Your task to perform on an android device: Go to battery settings Image 0: 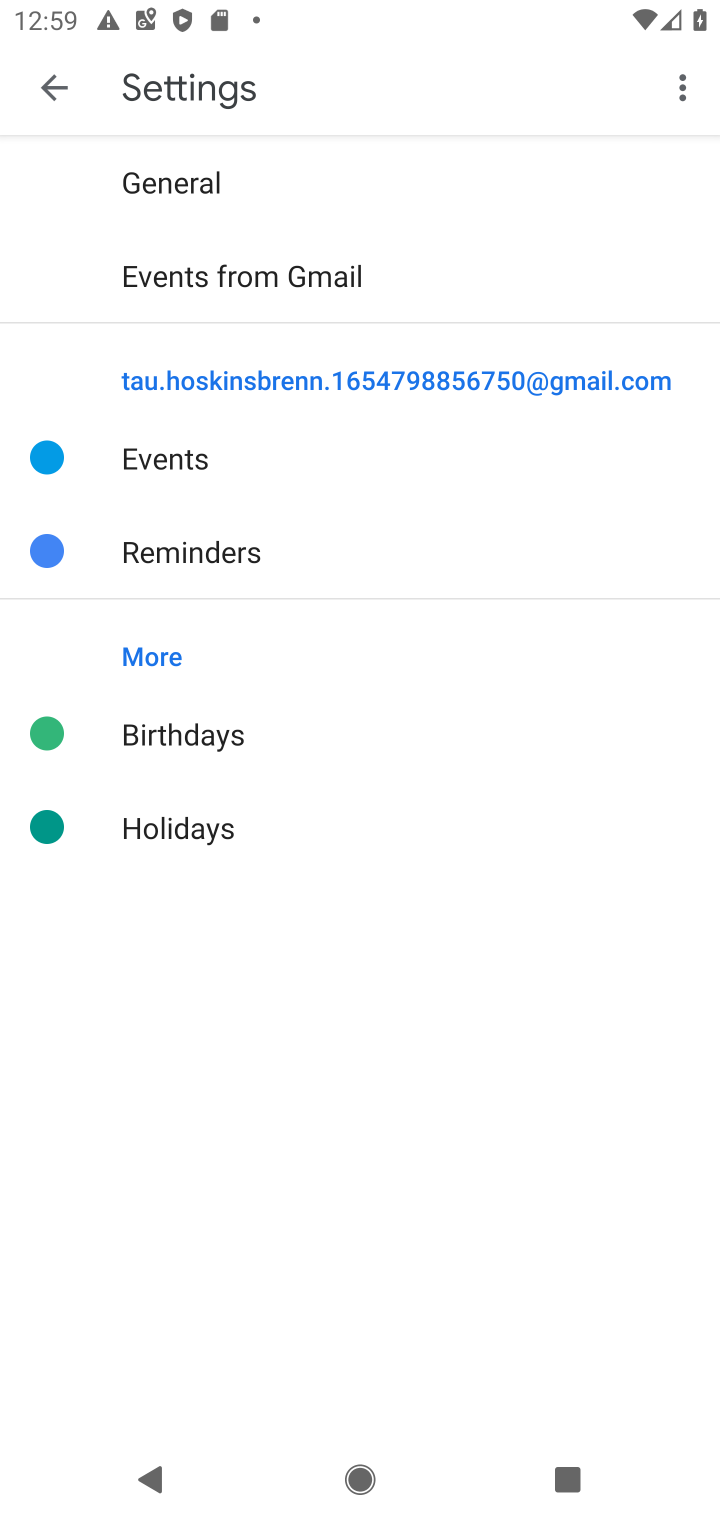
Step 0: press home button
Your task to perform on an android device: Go to battery settings Image 1: 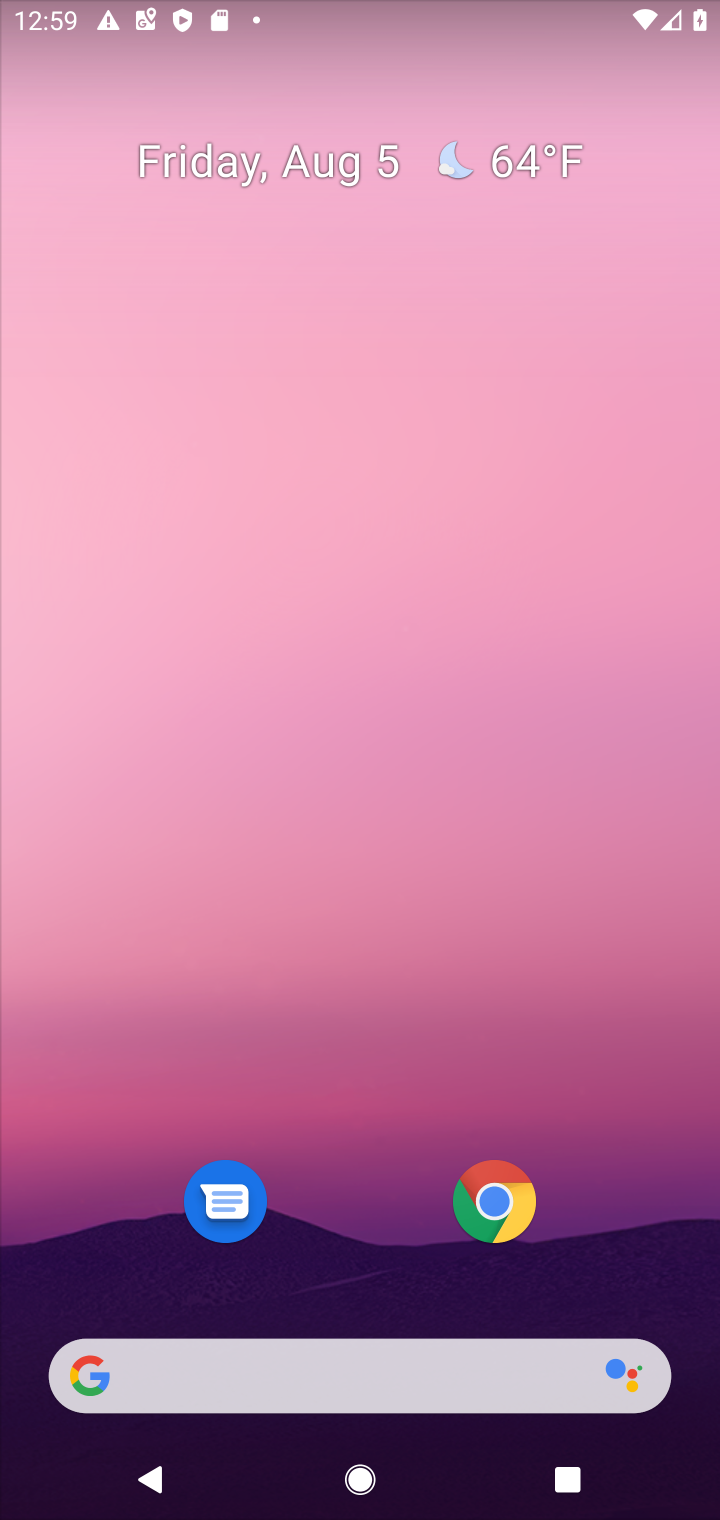
Step 1: drag from (666, 1241) to (519, 551)
Your task to perform on an android device: Go to battery settings Image 2: 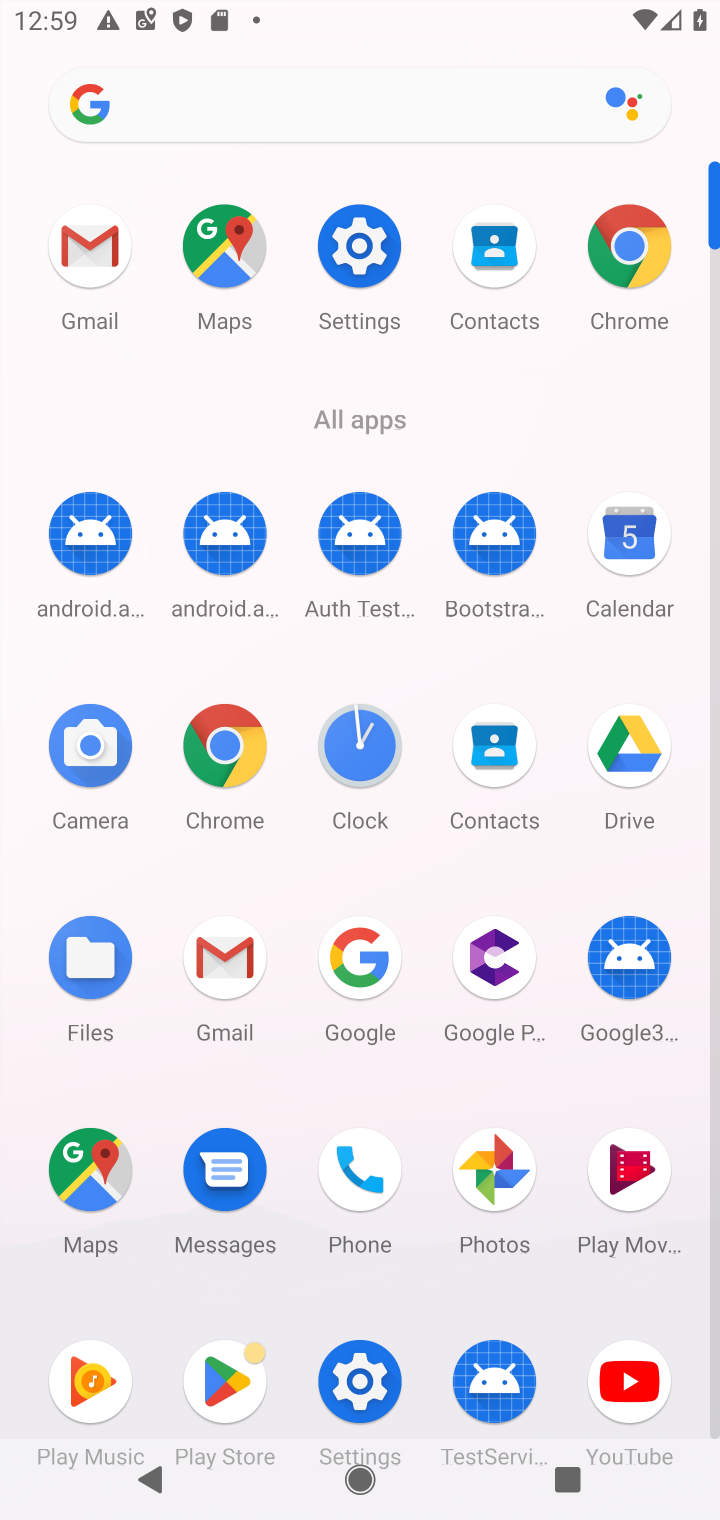
Step 2: click (362, 277)
Your task to perform on an android device: Go to battery settings Image 3: 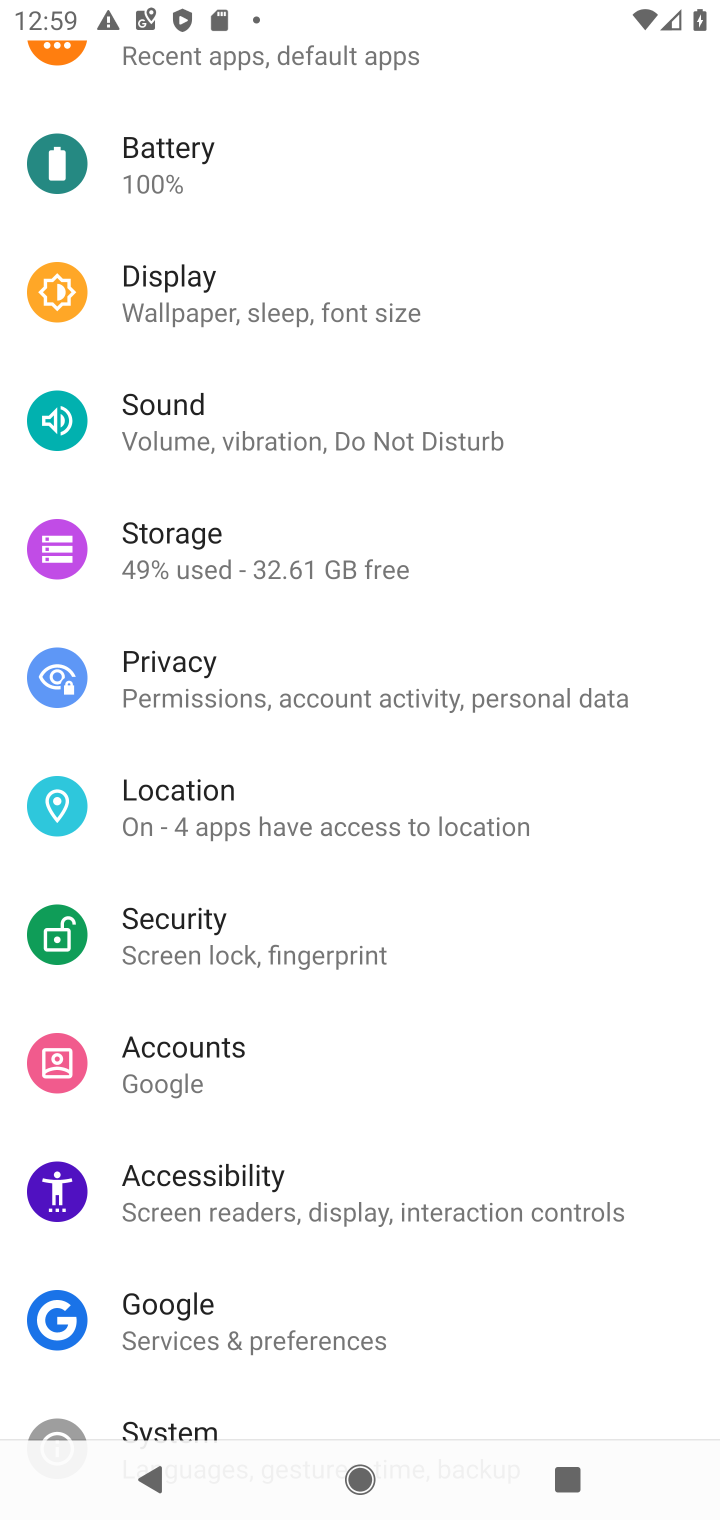
Step 3: click (177, 191)
Your task to perform on an android device: Go to battery settings Image 4: 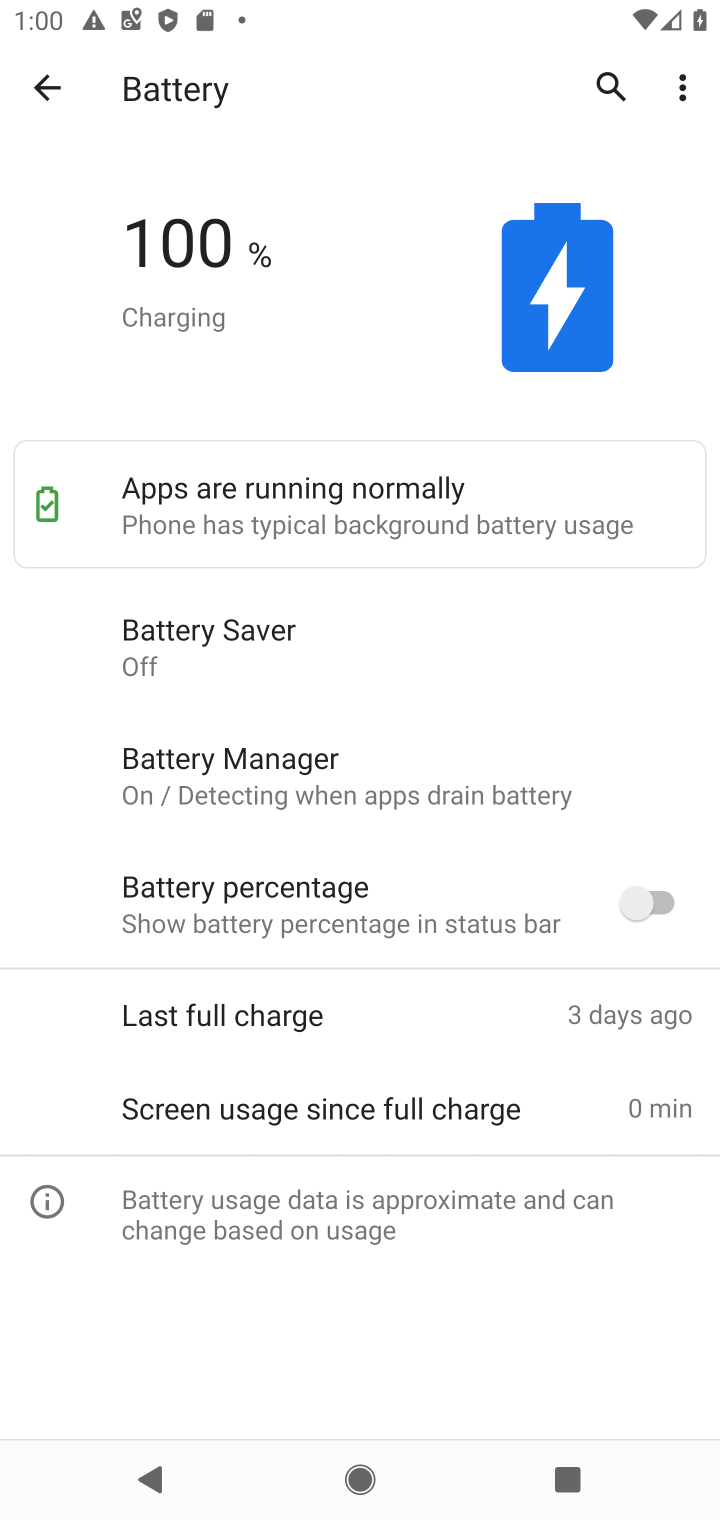
Step 4: task complete